Your task to perform on an android device: change alarm snooze length Image 0: 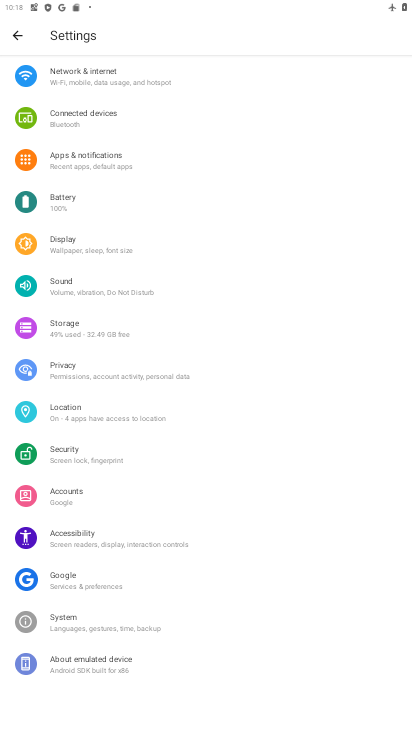
Step 0: press home button
Your task to perform on an android device: change alarm snooze length Image 1: 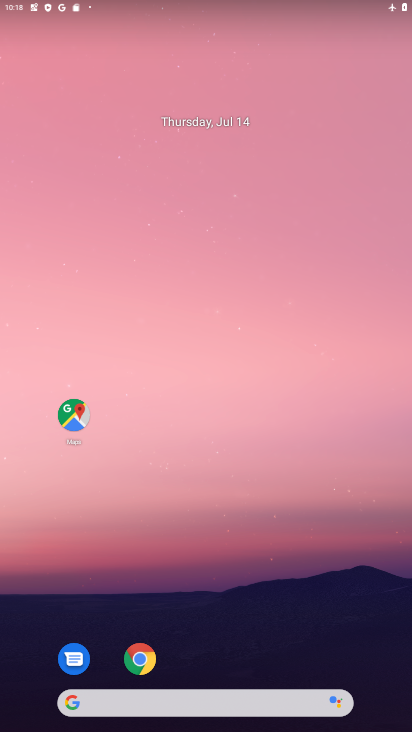
Step 1: drag from (292, 521) to (275, 119)
Your task to perform on an android device: change alarm snooze length Image 2: 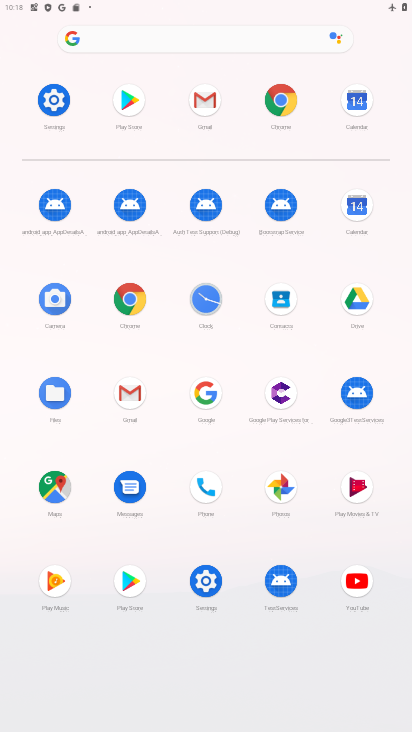
Step 2: click (199, 297)
Your task to perform on an android device: change alarm snooze length Image 3: 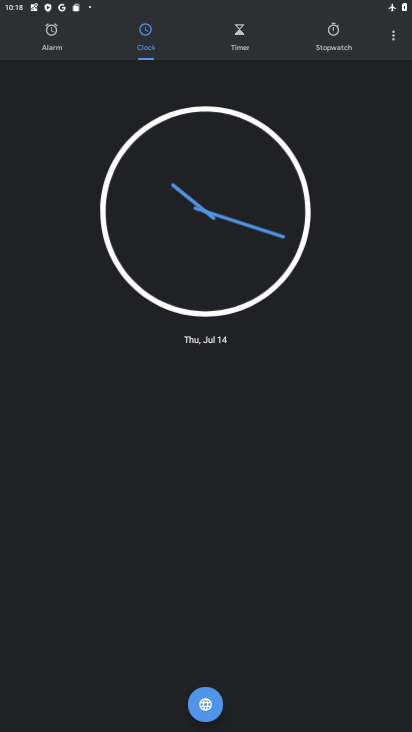
Step 3: click (393, 38)
Your task to perform on an android device: change alarm snooze length Image 4: 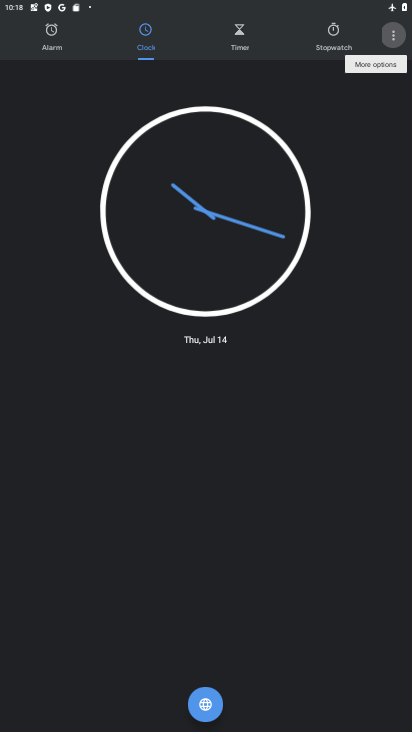
Step 4: click (393, 38)
Your task to perform on an android device: change alarm snooze length Image 5: 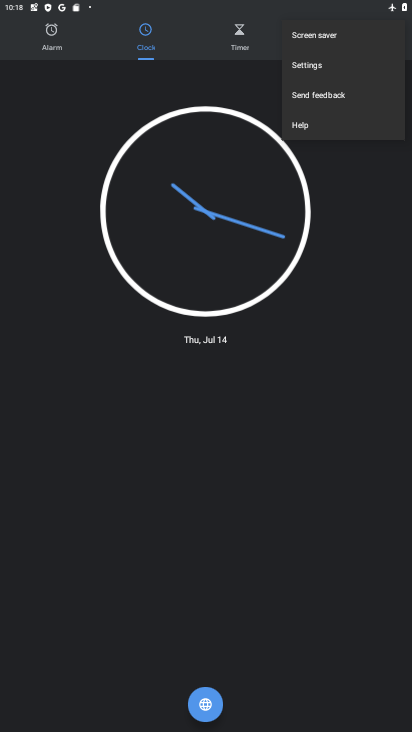
Step 5: click (310, 65)
Your task to perform on an android device: change alarm snooze length Image 6: 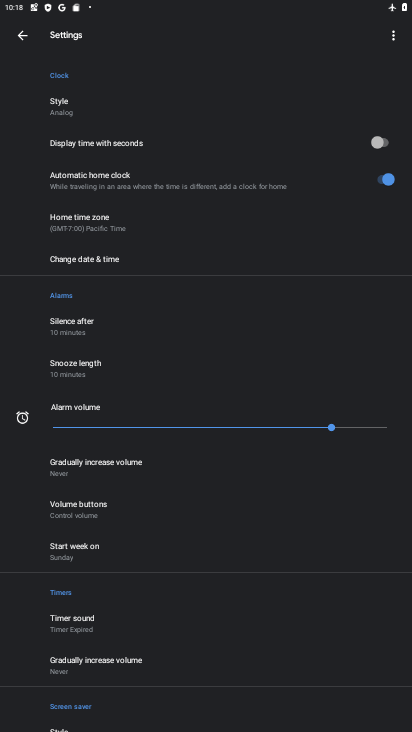
Step 6: click (98, 370)
Your task to perform on an android device: change alarm snooze length Image 7: 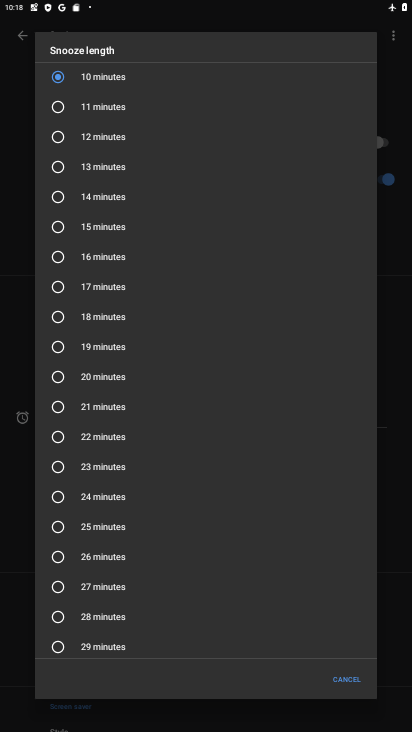
Step 7: click (117, 112)
Your task to perform on an android device: change alarm snooze length Image 8: 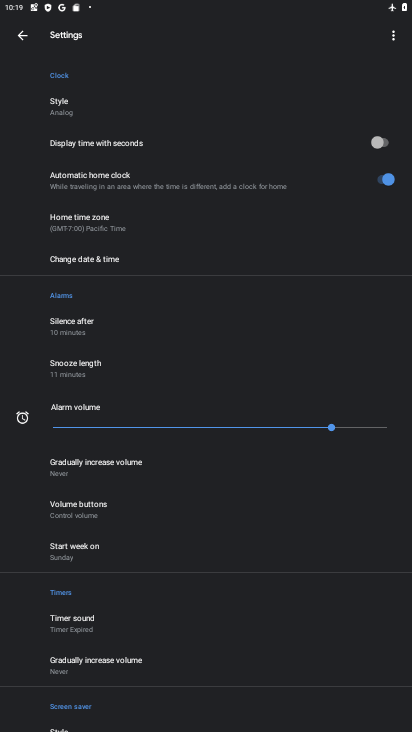
Step 8: task complete